Your task to perform on an android device: turn on priority inbox in the gmail app Image 0: 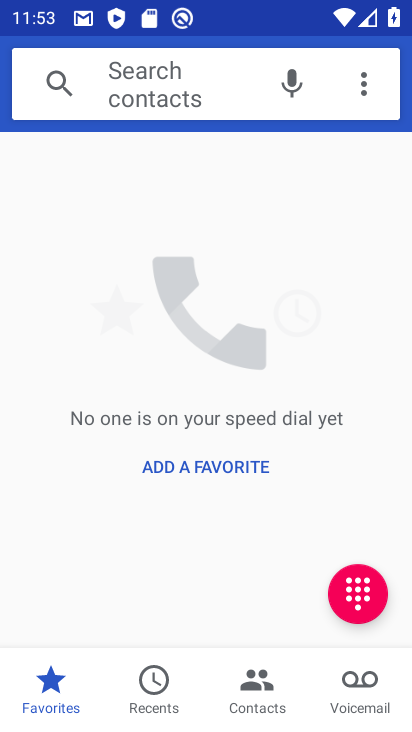
Step 0: press home button
Your task to perform on an android device: turn on priority inbox in the gmail app Image 1: 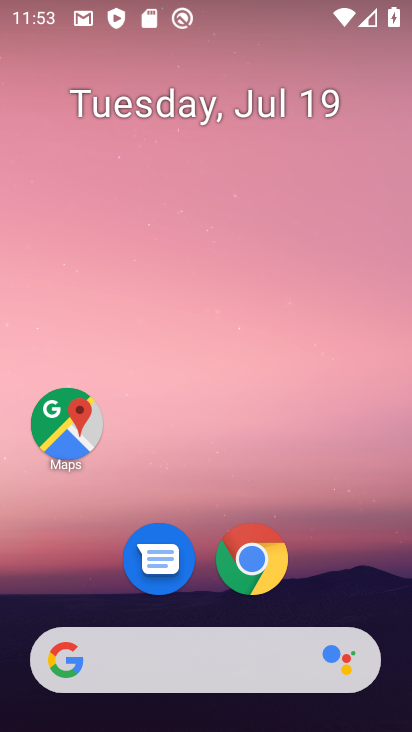
Step 1: drag from (384, 597) to (383, 145)
Your task to perform on an android device: turn on priority inbox in the gmail app Image 2: 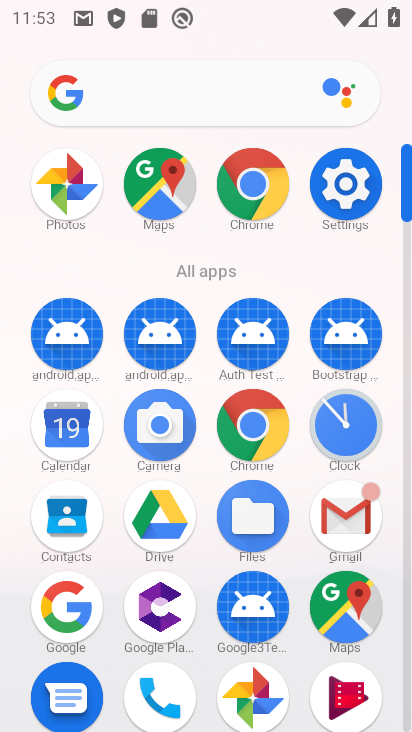
Step 2: click (353, 513)
Your task to perform on an android device: turn on priority inbox in the gmail app Image 3: 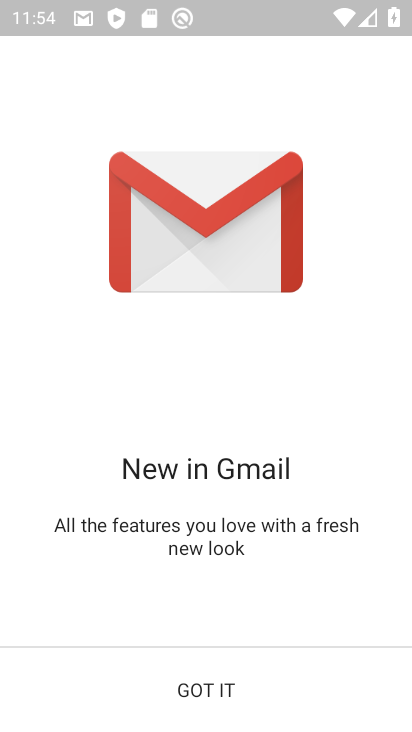
Step 3: click (220, 675)
Your task to perform on an android device: turn on priority inbox in the gmail app Image 4: 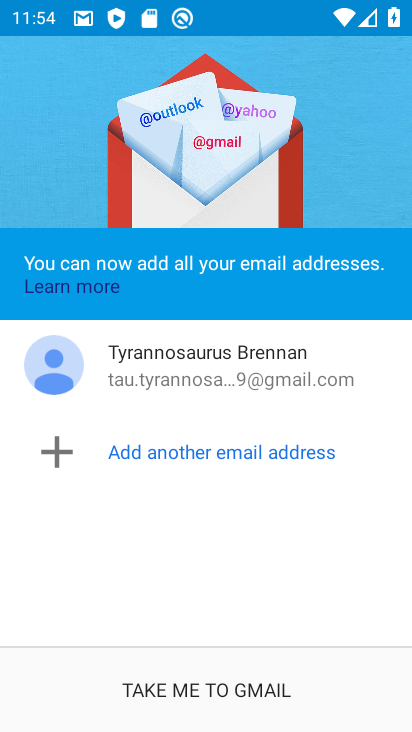
Step 4: click (220, 675)
Your task to perform on an android device: turn on priority inbox in the gmail app Image 5: 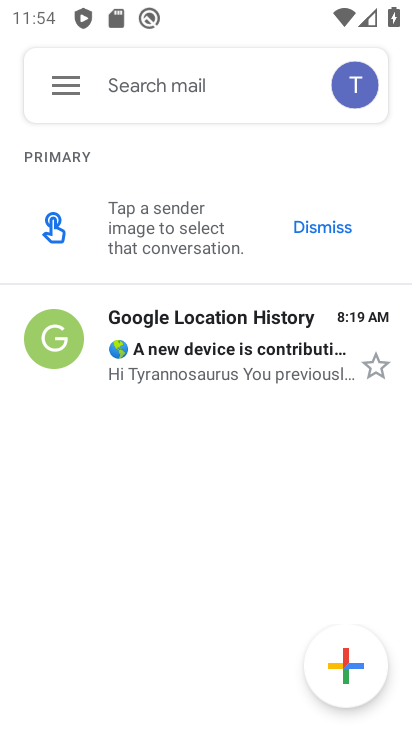
Step 5: click (75, 99)
Your task to perform on an android device: turn on priority inbox in the gmail app Image 6: 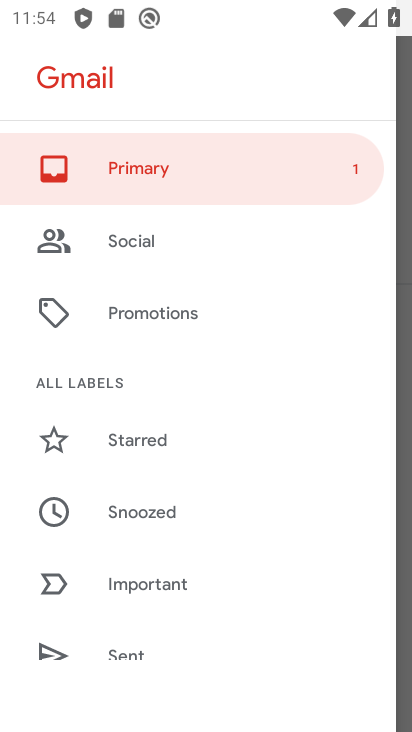
Step 6: drag from (303, 421) to (309, 361)
Your task to perform on an android device: turn on priority inbox in the gmail app Image 7: 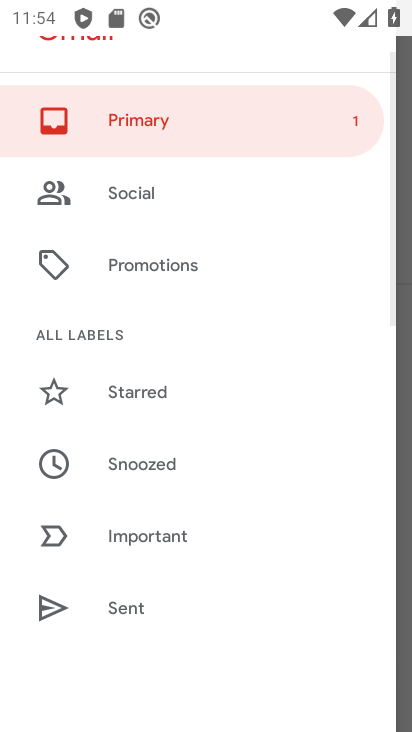
Step 7: drag from (305, 431) to (308, 345)
Your task to perform on an android device: turn on priority inbox in the gmail app Image 8: 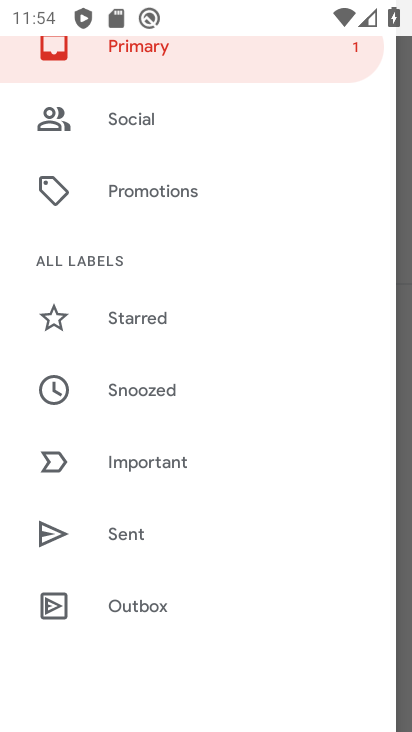
Step 8: drag from (305, 405) to (300, 313)
Your task to perform on an android device: turn on priority inbox in the gmail app Image 9: 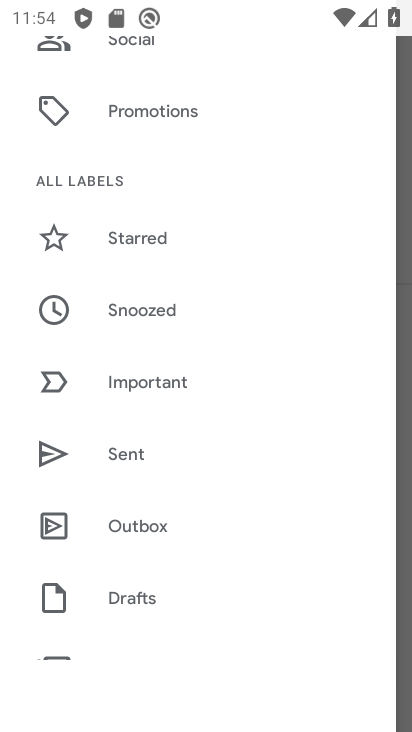
Step 9: drag from (301, 429) to (307, 346)
Your task to perform on an android device: turn on priority inbox in the gmail app Image 10: 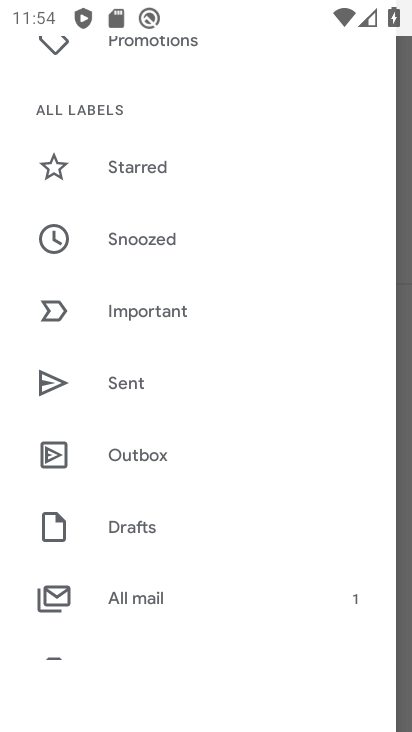
Step 10: drag from (303, 414) to (299, 312)
Your task to perform on an android device: turn on priority inbox in the gmail app Image 11: 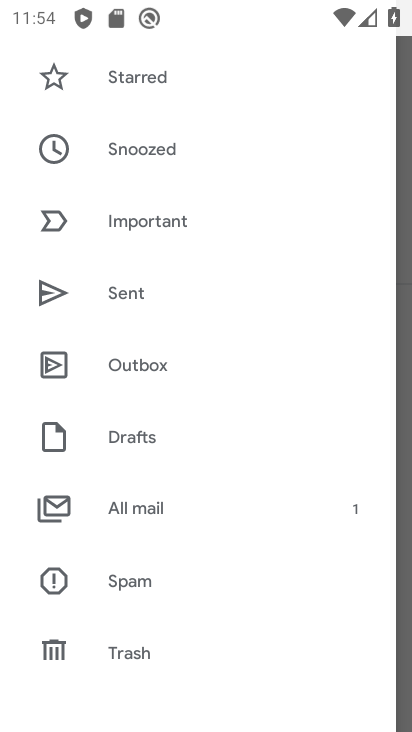
Step 11: drag from (291, 447) to (293, 346)
Your task to perform on an android device: turn on priority inbox in the gmail app Image 12: 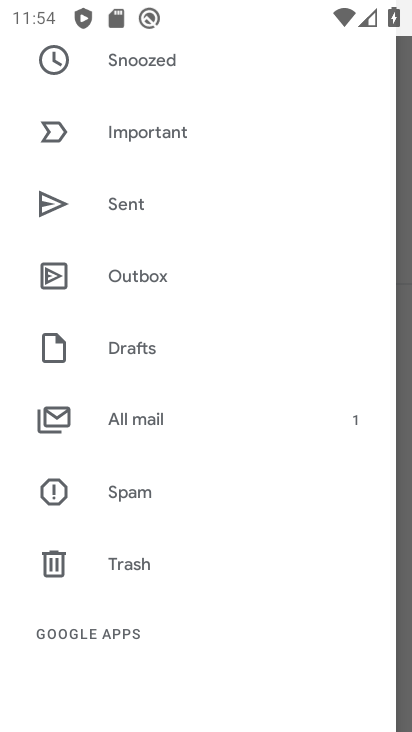
Step 12: drag from (279, 503) to (273, 388)
Your task to perform on an android device: turn on priority inbox in the gmail app Image 13: 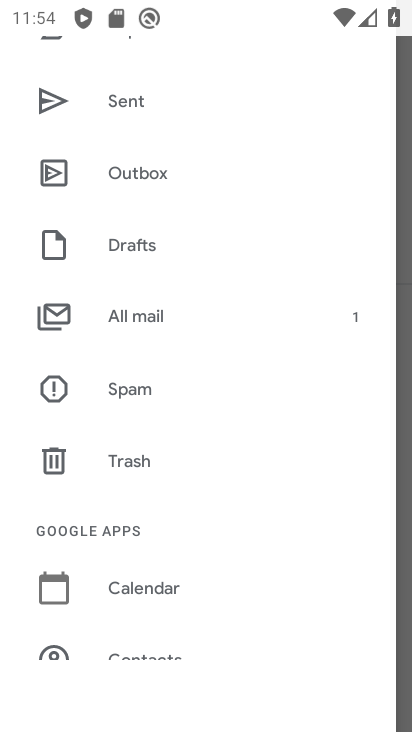
Step 13: drag from (260, 522) to (266, 373)
Your task to perform on an android device: turn on priority inbox in the gmail app Image 14: 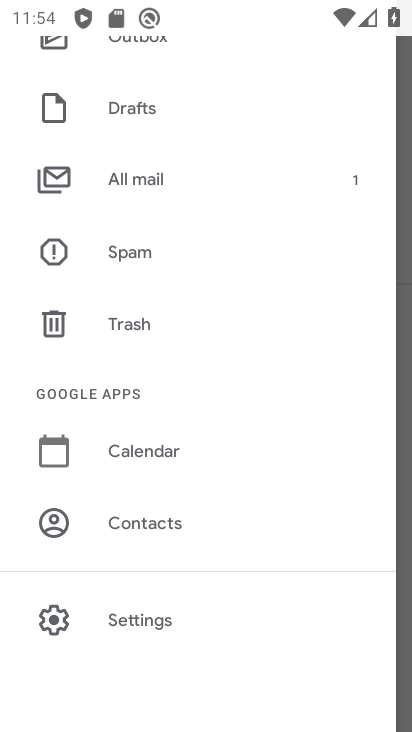
Step 14: drag from (268, 587) to (253, 433)
Your task to perform on an android device: turn on priority inbox in the gmail app Image 15: 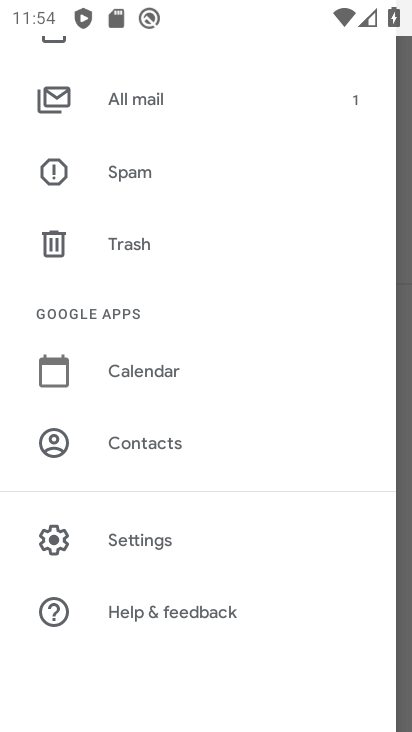
Step 15: click (196, 554)
Your task to perform on an android device: turn on priority inbox in the gmail app Image 16: 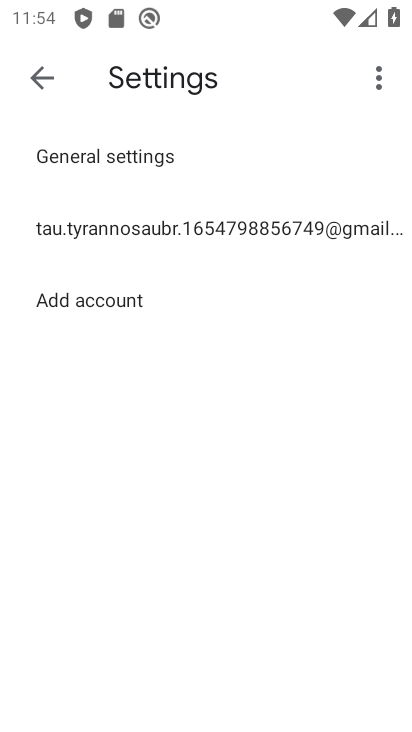
Step 16: click (251, 236)
Your task to perform on an android device: turn on priority inbox in the gmail app Image 17: 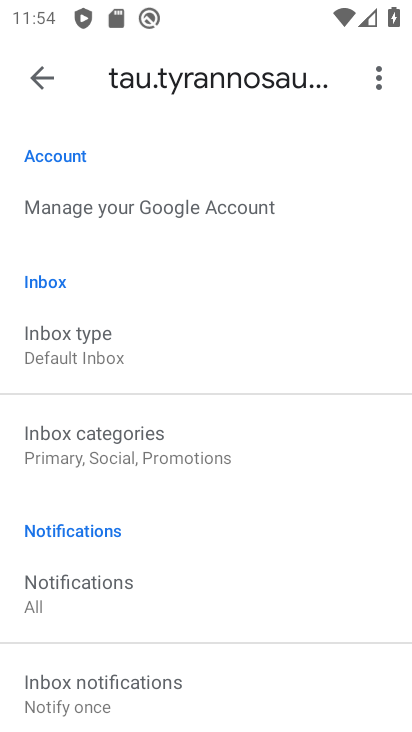
Step 17: drag from (319, 458) to (325, 364)
Your task to perform on an android device: turn on priority inbox in the gmail app Image 18: 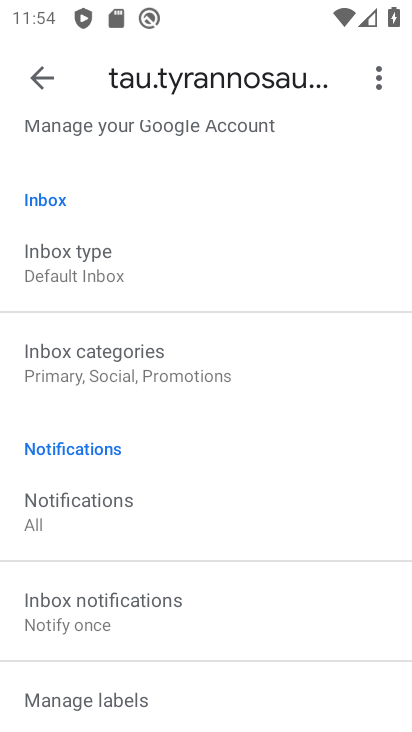
Step 18: drag from (321, 473) to (319, 353)
Your task to perform on an android device: turn on priority inbox in the gmail app Image 19: 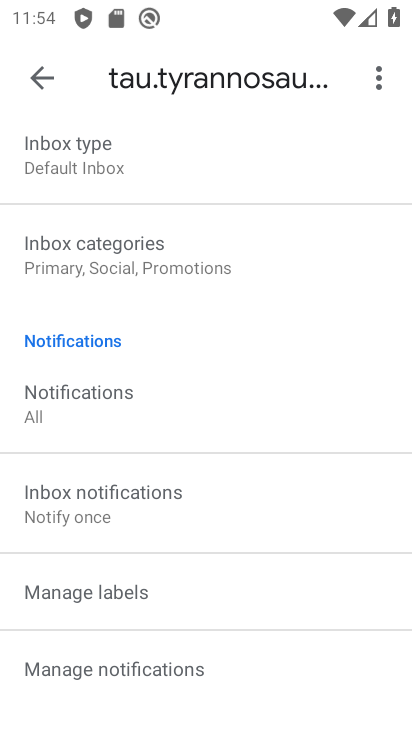
Step 19: drag from (318, 473) to (321, 376)
Your task to perform on an android device: turn on priority inbox in the gmail app Image 20: 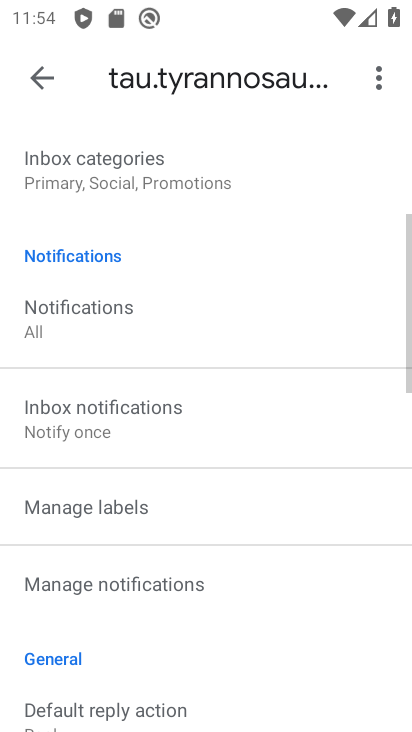
Step 20: drag from (309, 227) to (314, 384)
Your task to perform on an android device: turn on priority inbox in the gmail app Image 21: 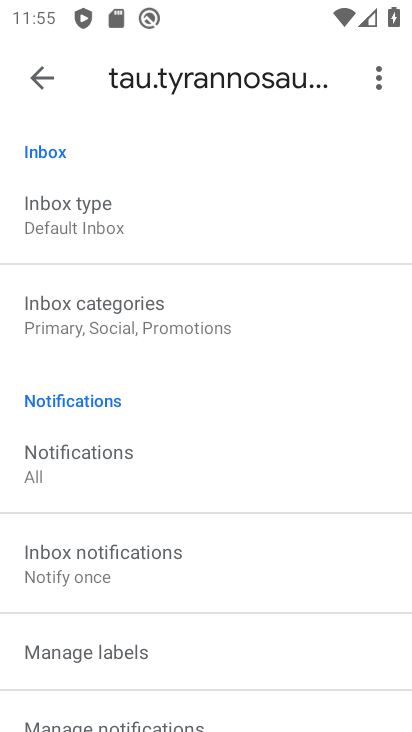
Step 21: click (177, 222)
Your task to perform on an android device: turn on priority inbox in the gmail app Image 22: 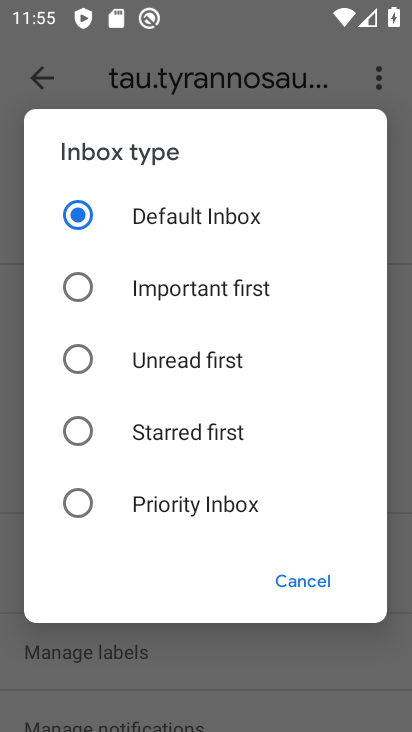
Step 22: click (198, 499)
Your task to perform on an android device: turn on priority inbox in the gmail app Image 23: 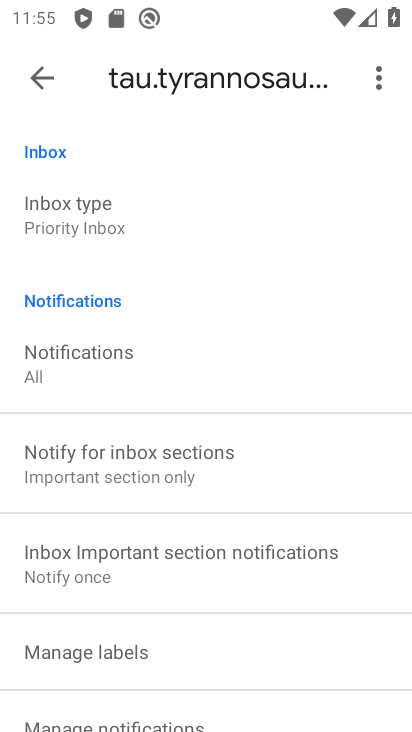
Step 23: task complete